Your task to perform on an android device: toggle show notifications on the lock screen Image 0: 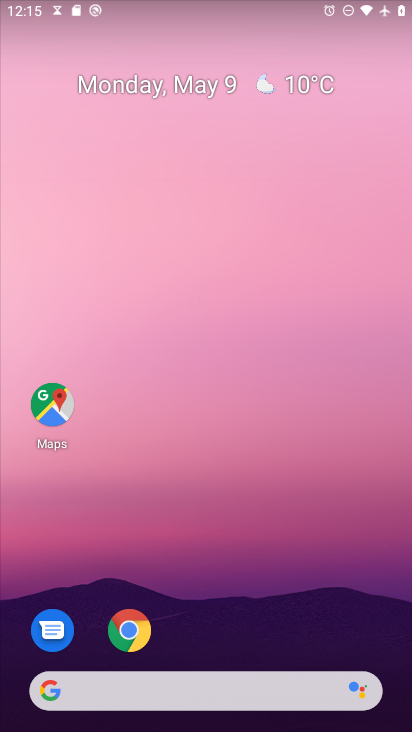
Step 0: drag from (179, 692) to (335, 94)
Your task to perform on an android device: toggle show notifications on the lock screen Image 1: 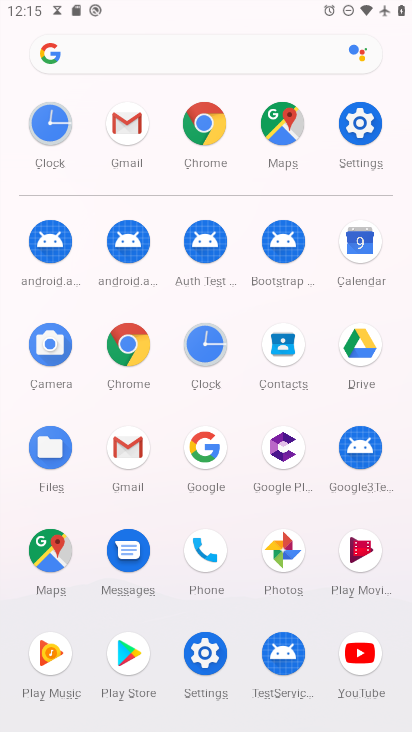
Step 1: click (362, 132)
Your task to perform on an android device: toggle show notifications on the lock screen Image 2: 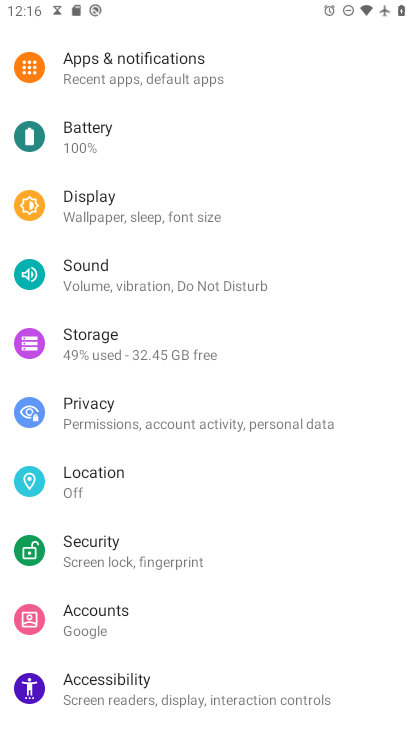
Step 2: click (192, 79)
Your task to perform on an android device: toggle show notifications on the lock screen Image 3: 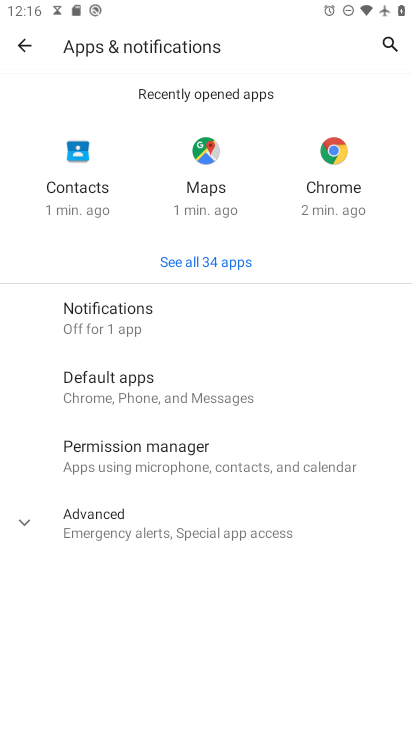
Step 3: click (157, 314)
Your task to perform on an android device: toggle show notifications on the lock screen Image 4: 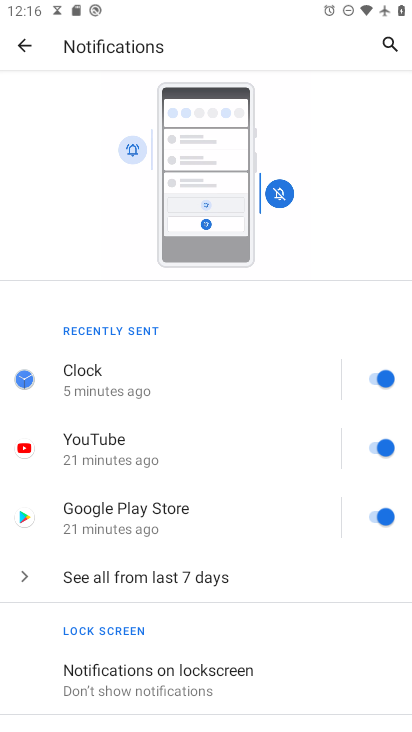
Step 4: click (169, 686)
Your task to perform on an android device: toggle show notifications on the lock screen Image 5: 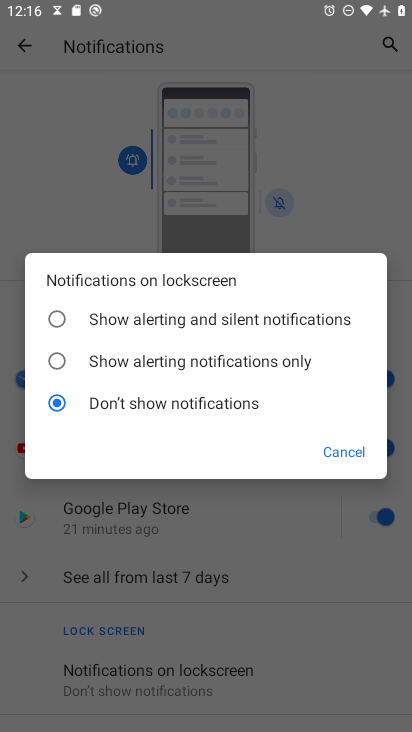
Step 5: click (58, 314)
Your task to perform on an android device: toggle show notifications on the lock screen Image 6: 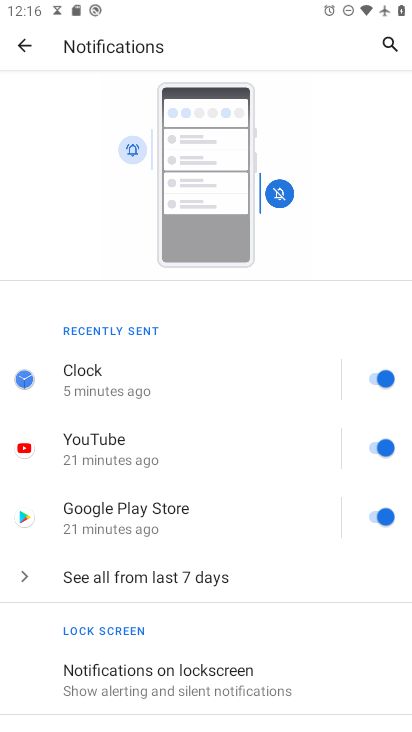
Step 6: task complete